Your task to perform on an android device: turn on sleep mode Image 0: 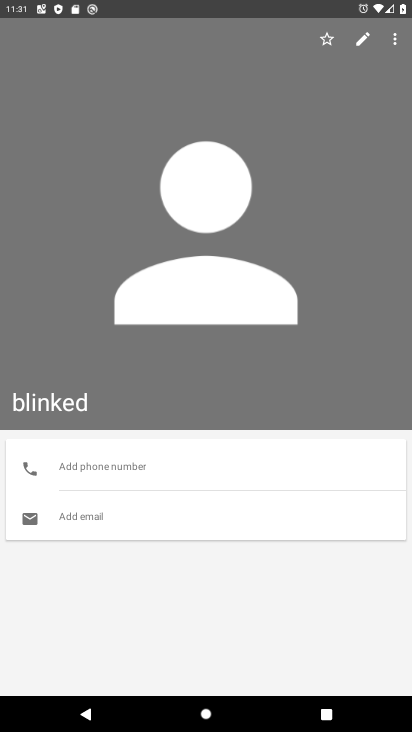
Step 0: press home button
Your task to perform on an android device: turn on sleep mode Image 1: 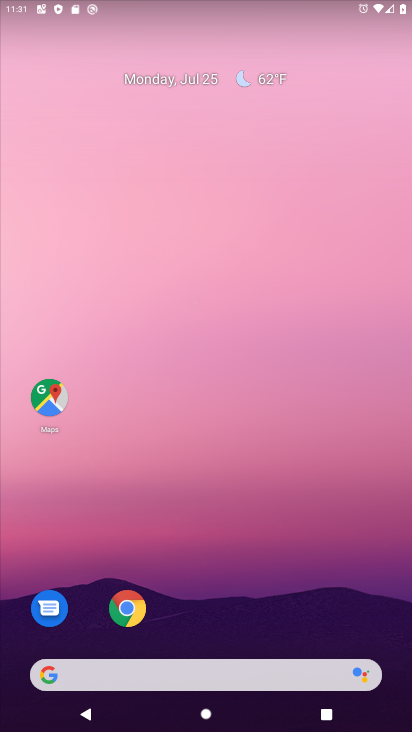
Step 1: drag from (200, 573) to (261, 11)
Your task to perform on an android device: turn on sleep mode Image 2: 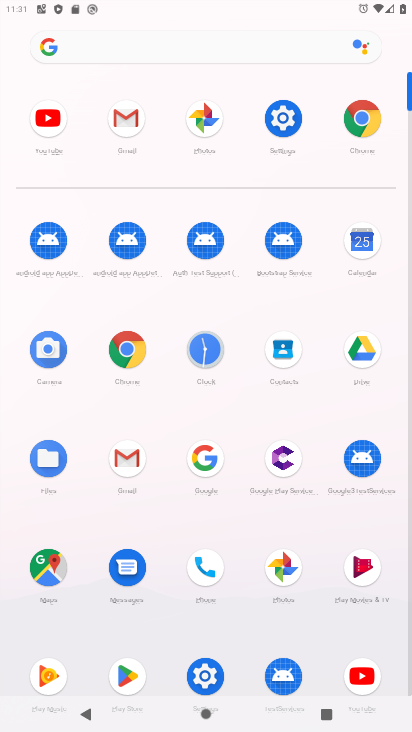
Step 2: click (203, 674)
Your task to perform on an android device: turn on sleep mode Image 3: 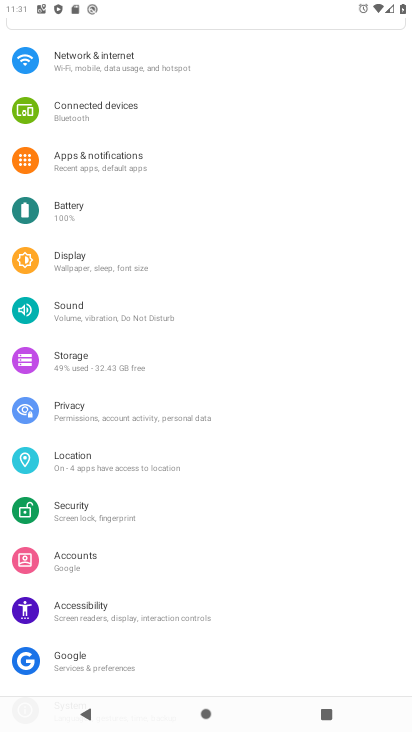
Step 3: drag from (144, 166) to (162, 491)
Your task to perform on an android device: turn on sleep mode Image 4: 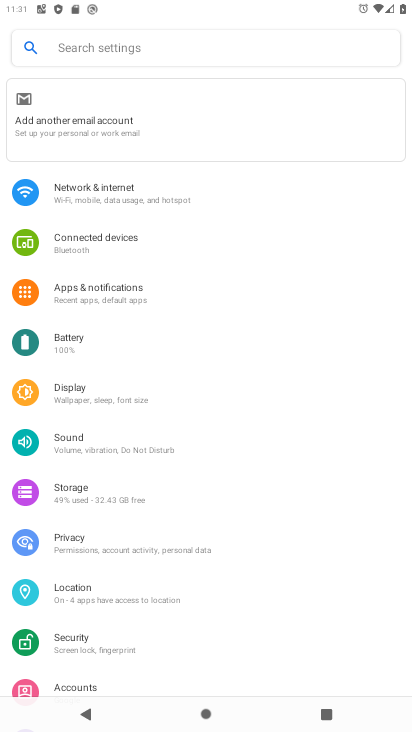
Step 4: click (162, 51)
Your task to perform on an android device: turn on sleep mode Image 5: 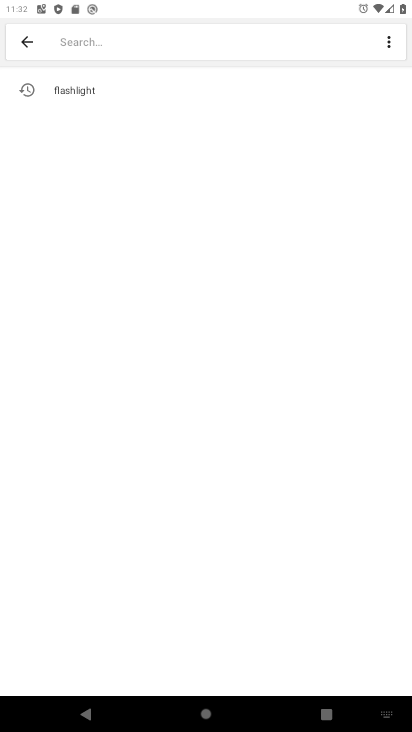
Step 5: type "sleep mode"
Your task to perform on an android device: turn on sleep mode Image 6: 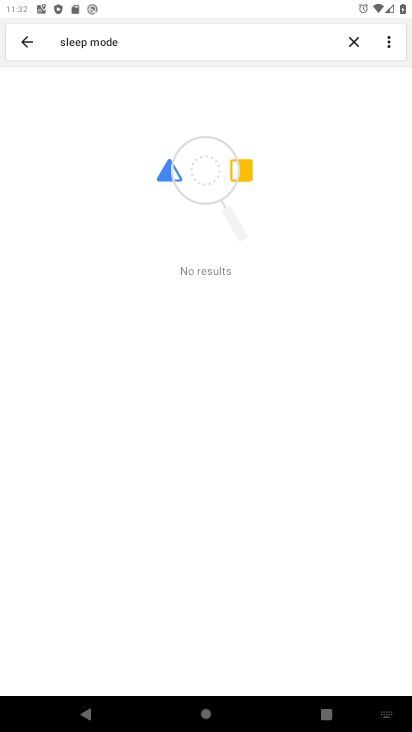
Step 6: task complete